Your task to perform on an android device: Toggle the flashlight Image 0: 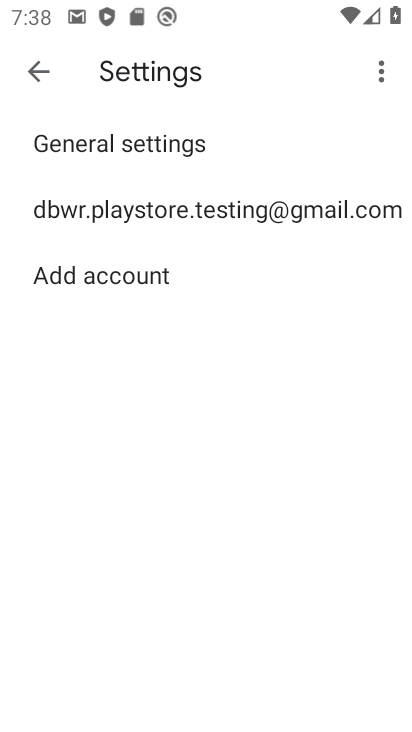
Step 0: press home button
Your task to perform on an android device: Toggle the flashlight Image 1: 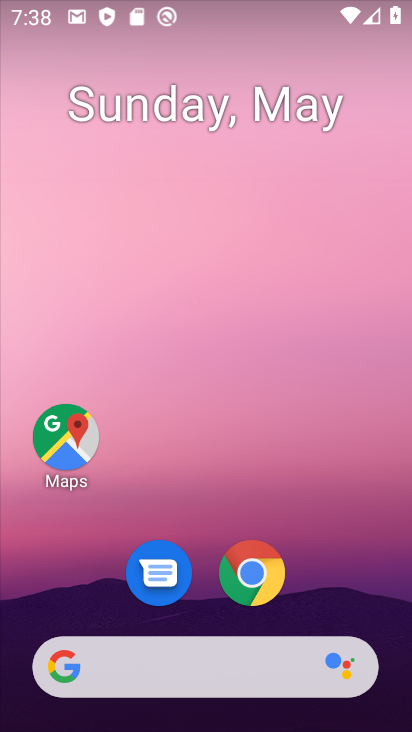
Step 1: drag from (222, 505) to (217, 0)
Your task to perform on an android device: Toggle the flashlight Image 2: 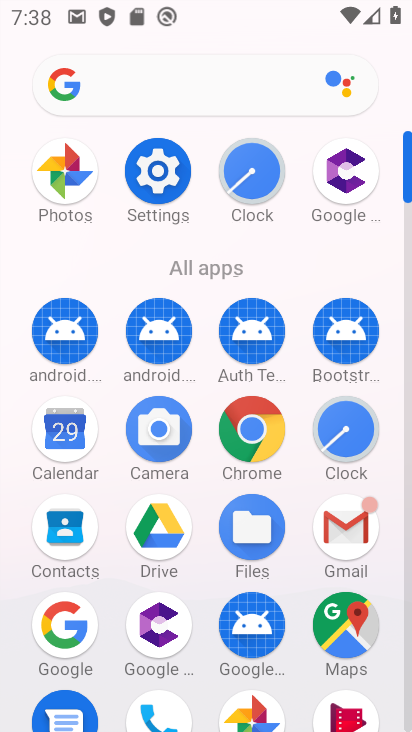
Step 2: click (170, 180)
Your task to perform on an android device: Toggle the flashlight Image 3: 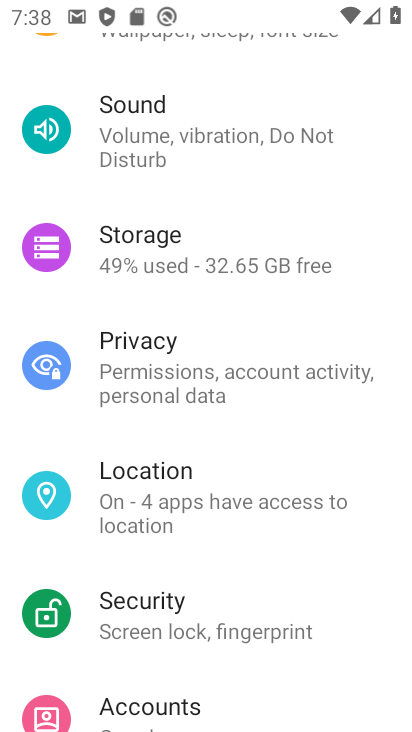
Step 3: drag from (218, 153) to (259, 698)
Your task to perform on an android device: Toggle the flashlight Image 4: 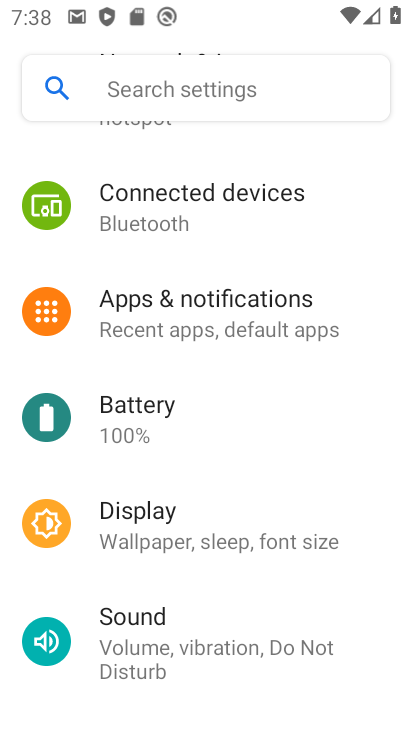
Step 4: drag from (268, 256) to (290, 702)
Your task to perform on an android device: Toggle the flashlight Image 5: 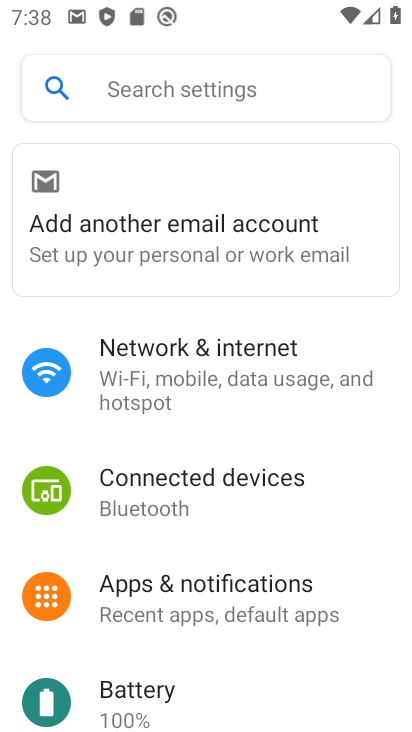
Step 5: click (222, 69)
Your task to perform on an android device: Toggle the flashlight Image 6: 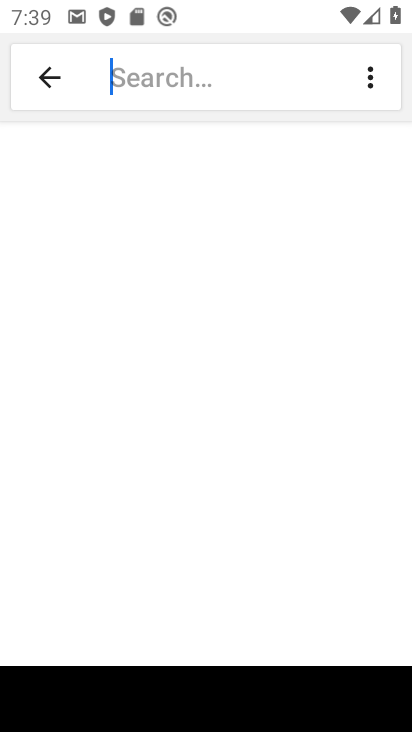
Step 6: type "Flashlight"
Your task to perform on an android device: Toggle the flashlight Image 7: 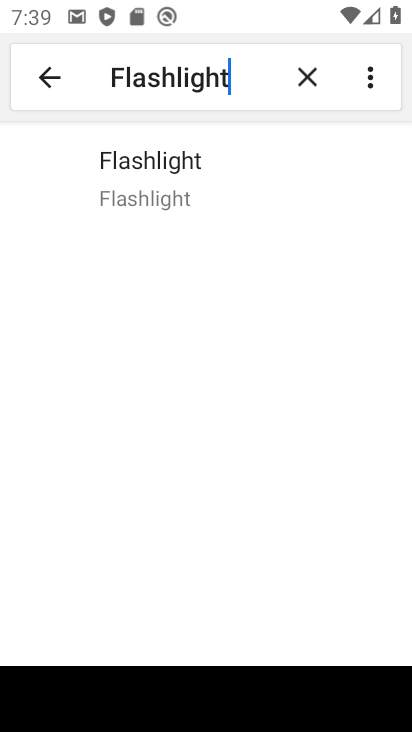
Step 7: click (162, 182)
Your task to perform on an android device: Toggle the flashlight Image 8: 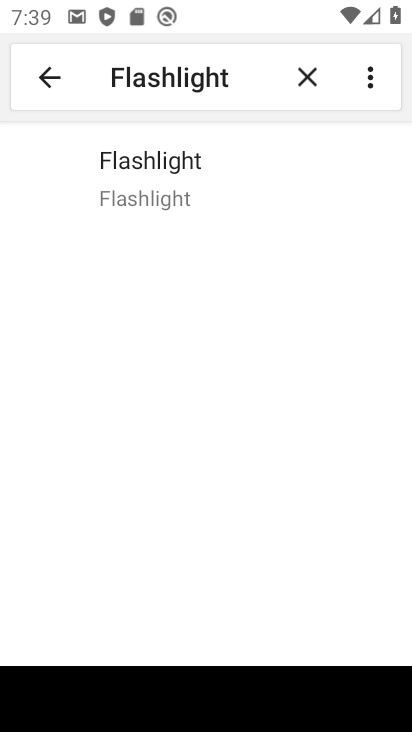
Step 8: task complete